Your task to perform on an android device: Search for Mexican restaurants on Maps Image 0: 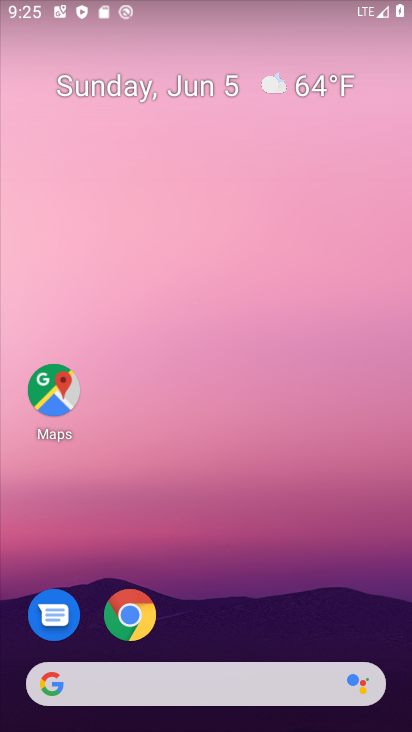
Step 0: click (51, 413)
Your task to perform on an android device: Search for Mexican restaurants on Maps Image 1: 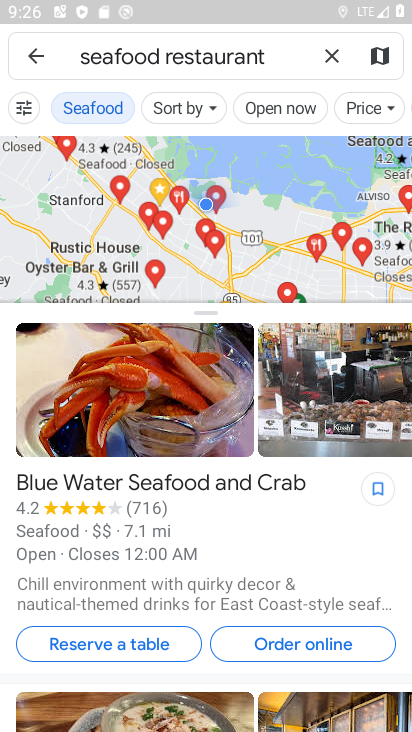
Step 1: click (339, 49)
Your task to perform on an android device: Search for Mexican restaurants on Maps Image 2: 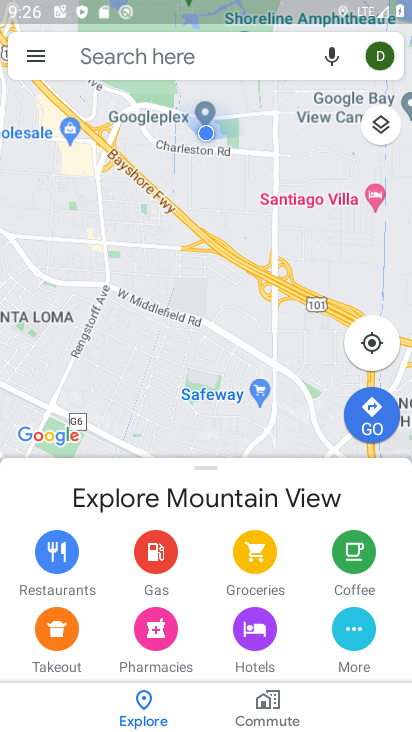
Step 2: click (193, 54)
Your task to perform on an android device: Search for Mexican restaurants on Maps Image 3: 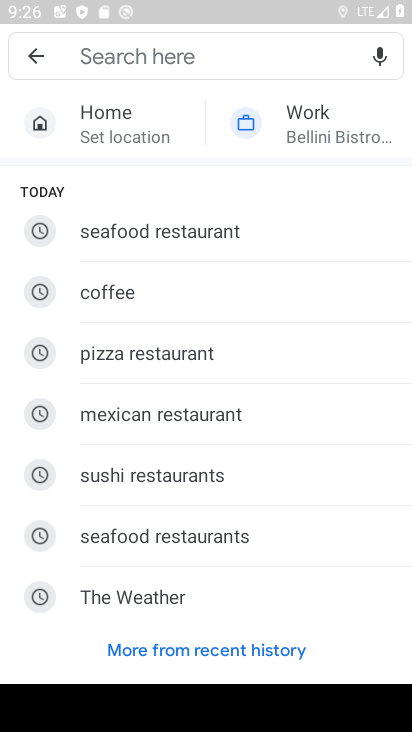
Step 3: click (137, 412)
Your task to perform on an android device: Search for Mexican restaurants on Maps Image 4: 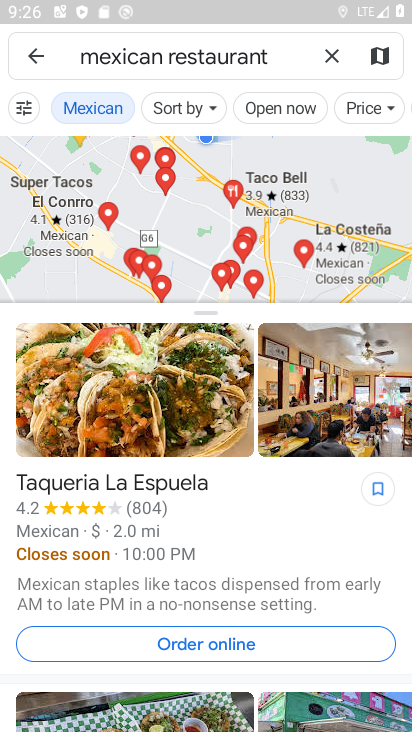
Step 4: task complete